Your task to perform on an android device: star an email in the gmail app Image 0: 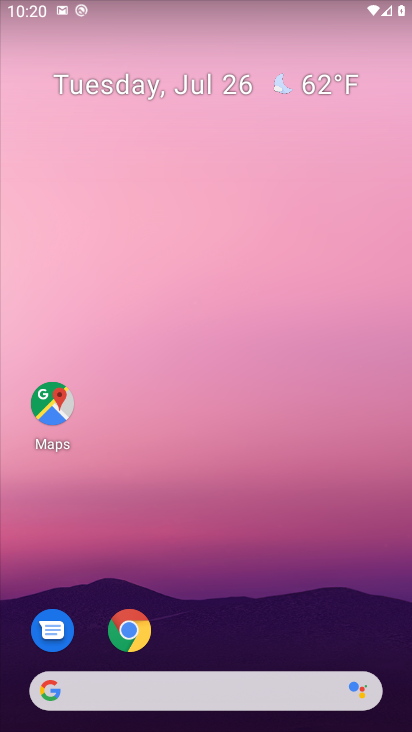
Step 0: drag from (216, 652) to (238, 2)
Your task to perform on an android device: star an email in the gmail app Image 1: 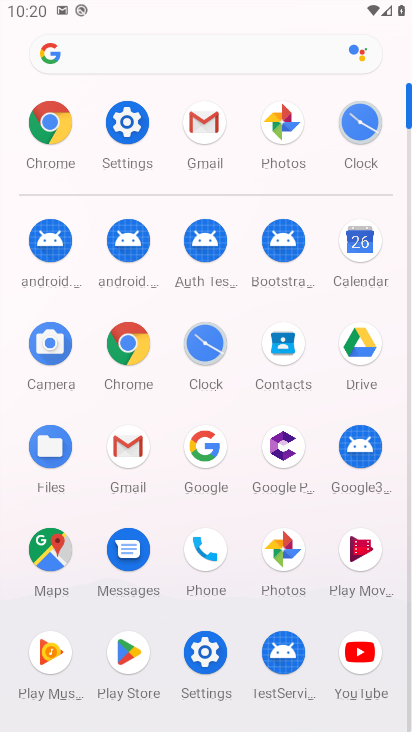
Step 1: click (133, 442)
Your task to perform on an android device: star an email in the gmail app Image 2: 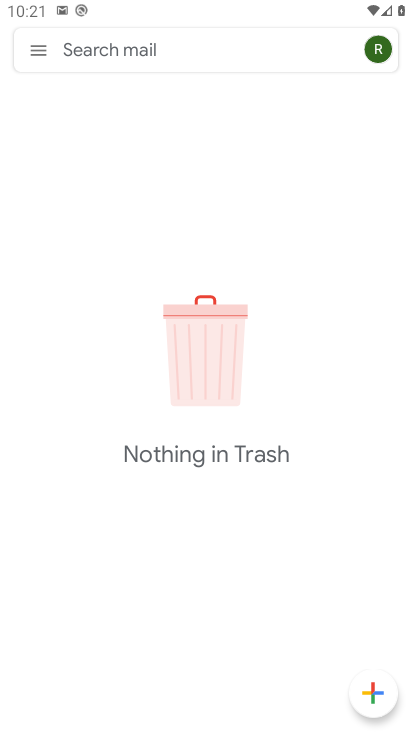
Step 2: click (45, 49)
Your task to perform on an android device: star an email in the gmail app Image 3: 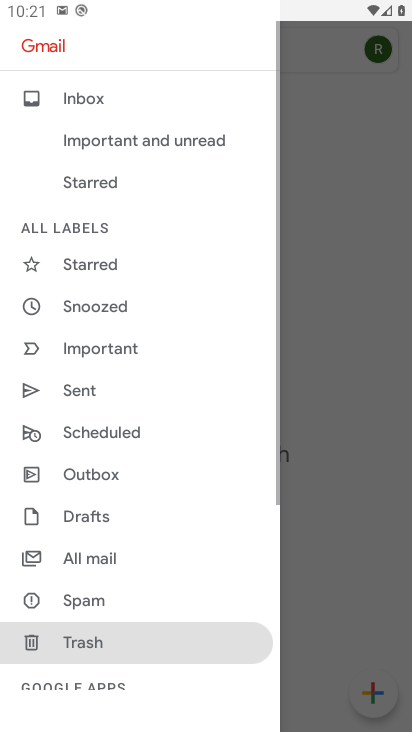
Step 3: click (102, 550)
Your task to perform on an android device: star an email in the gmail app Image 4: 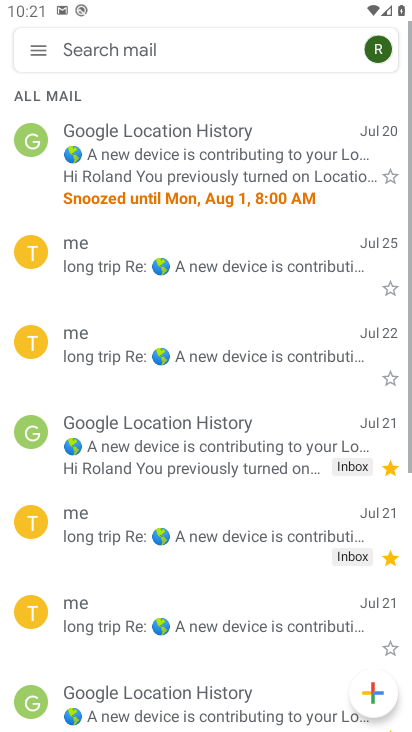
Step 4: task complete